Your task to perform on an android device: turn on improve location accuracy Image 0: 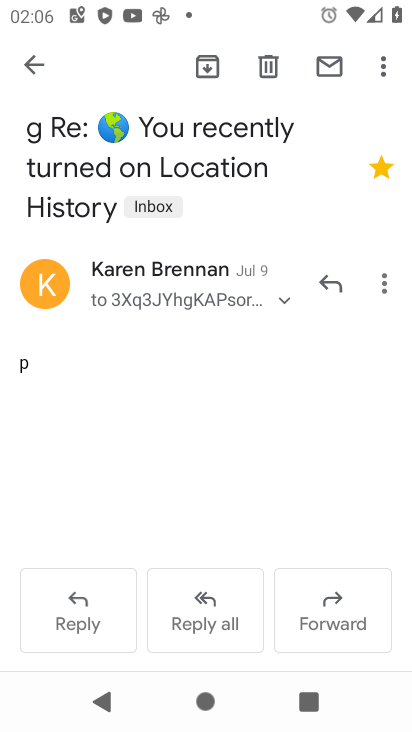
Step 0: press home button
Your task to perform on an android device: turn on improve location accuracy Image 1: 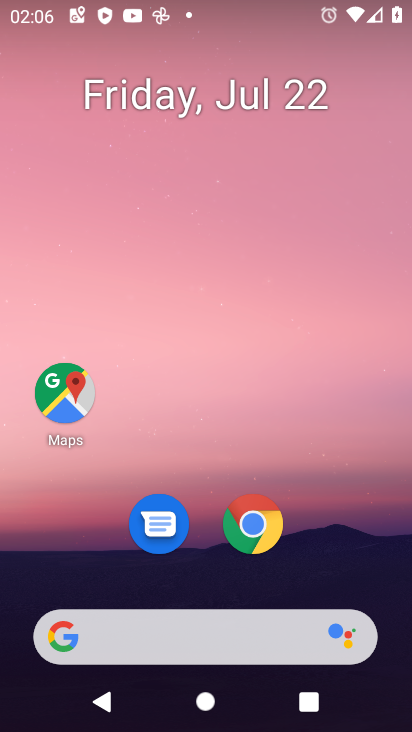
Step 1: drag from (202, 621) to (233, 178)
Your task to perform on an android device: turn on improve location accuracy Image 2: 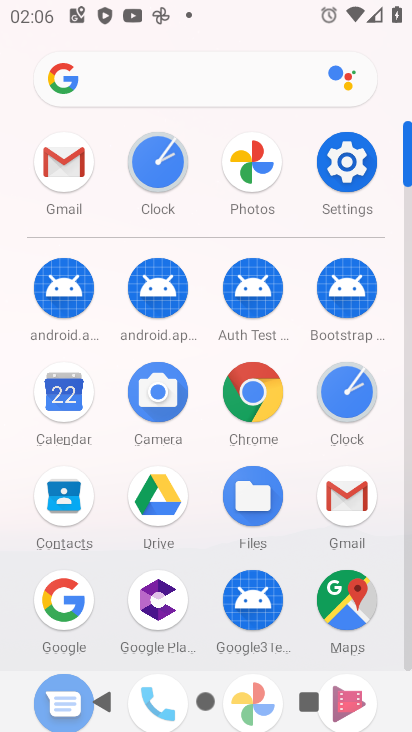
Step 2: click (342, 157)
Your task to perform on an android device: turn on improve location accuracy Image 3: 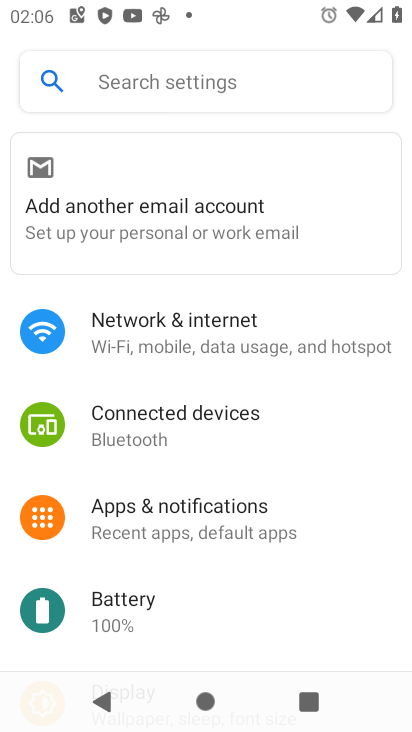
Step 3: drag from (212, 619) to (278, 178)
Your task to perform on an android device: turn on improve location accuracy Image 4: 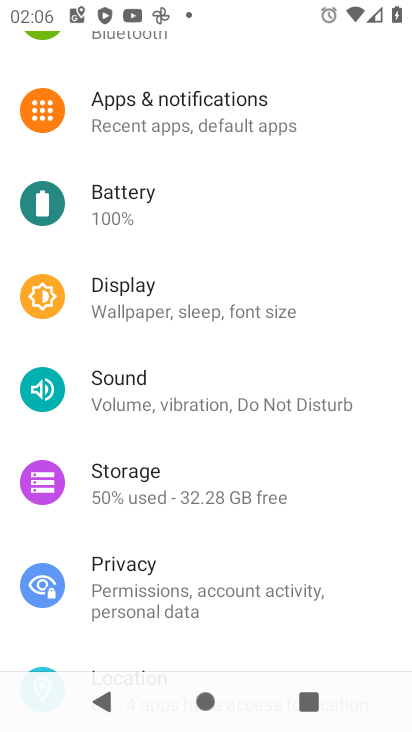
Step 4: drag from (222, 567) to (315, 165)
Your task to perform on an android device: turn on improve location accuracy Image 5: 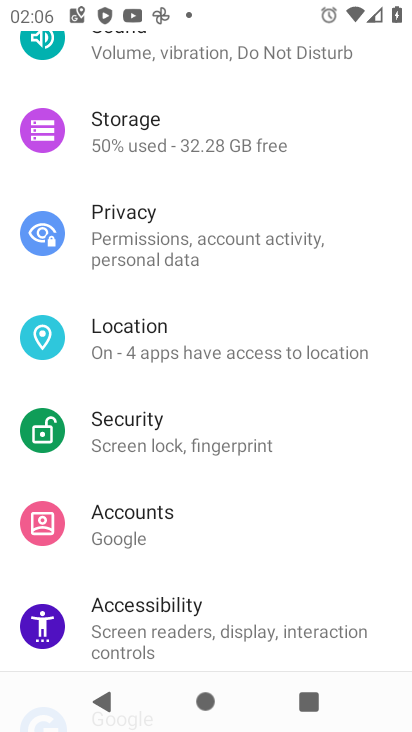
Step 5: click (173, 334)
Your task to perform on an android device: turn on improve location accuracy Image 6: 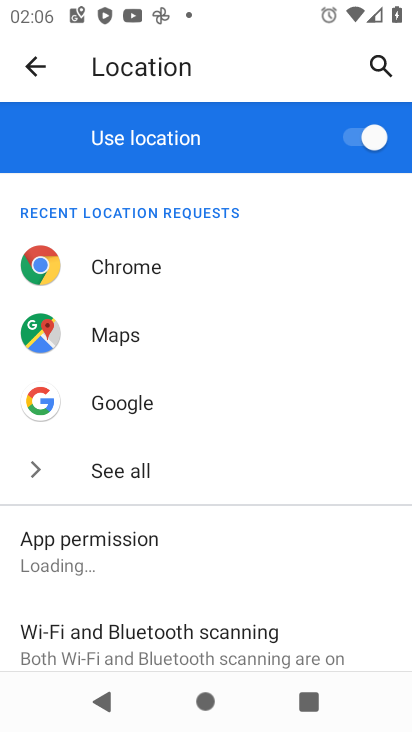
Step 6: drag from (188, 537) to (249, 212)
Your task to perform on an android device: turn on improve location accuracy Image 7: 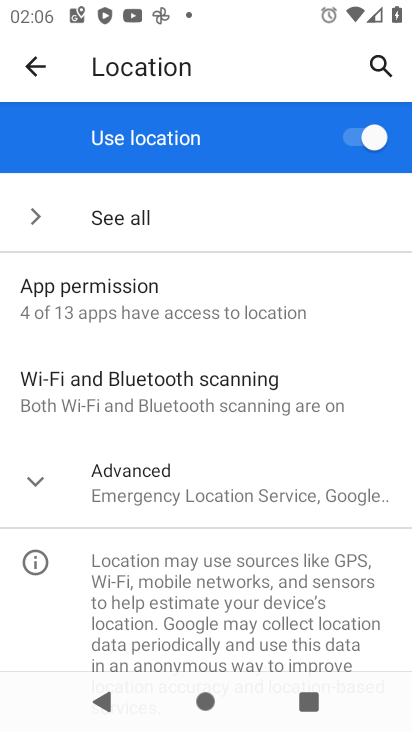
Step 7: click (151, 489)
Your task to perform on an android device: turn on improve location accuracy Image 8: 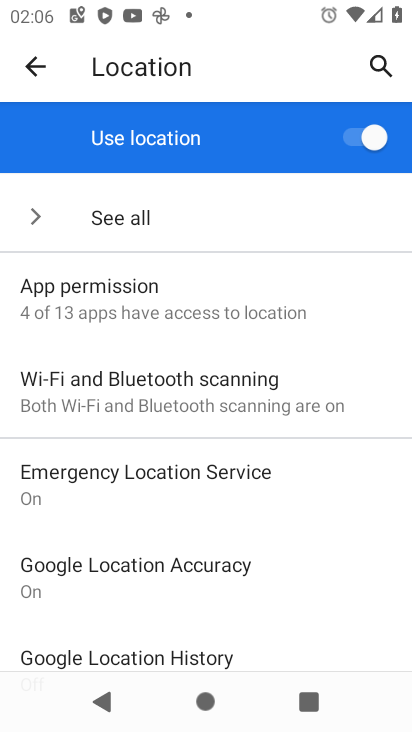
Step 8: click (144, 570)
Your task to perform on an android device: turn on improve location accuracy Image 9: 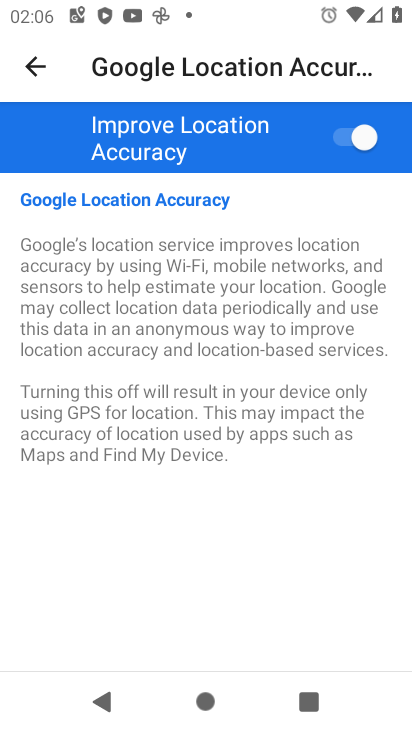
Step 9: task complete